Your task to perform on an android device: open device folders in google photos Image 0: 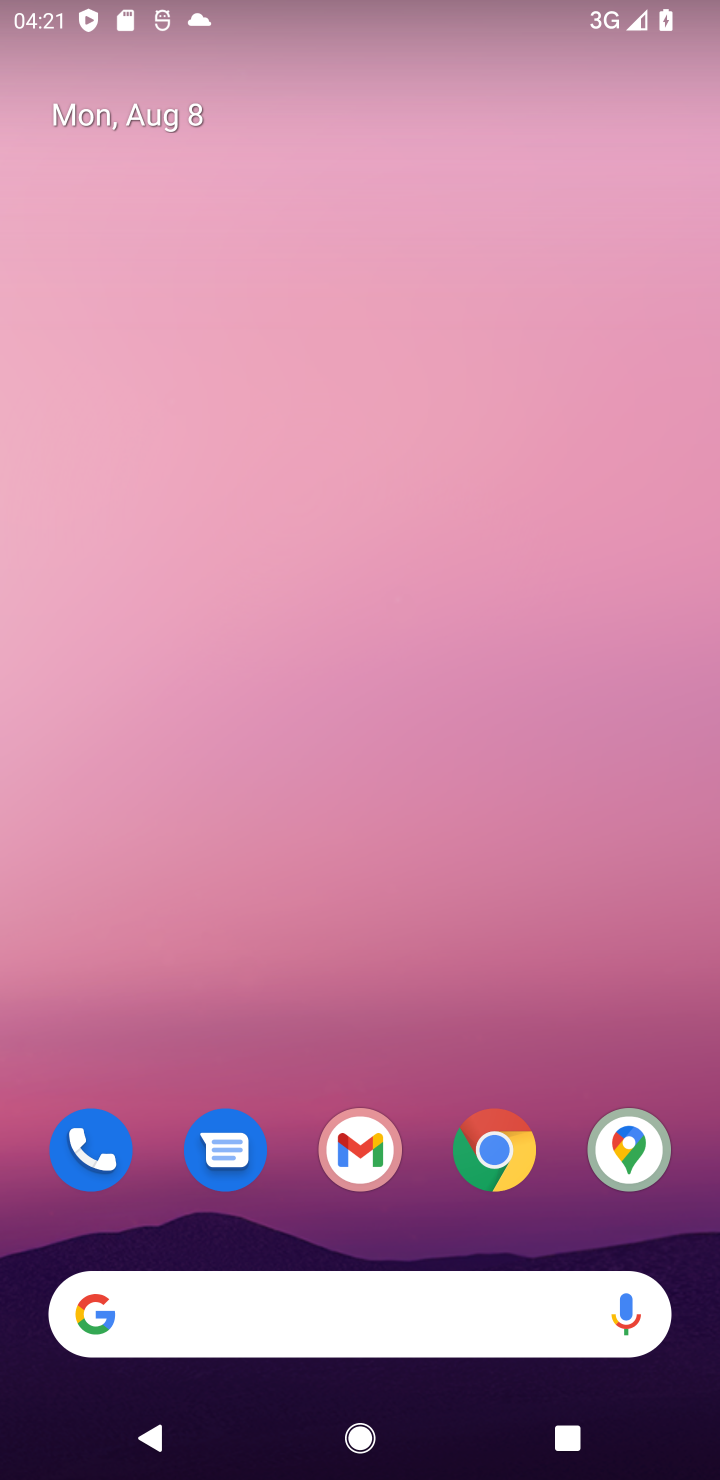
Step 0: drag from (105, 1446) to (382, 796)
Your task to perform on an android device: open device folders in google photos Image 1: 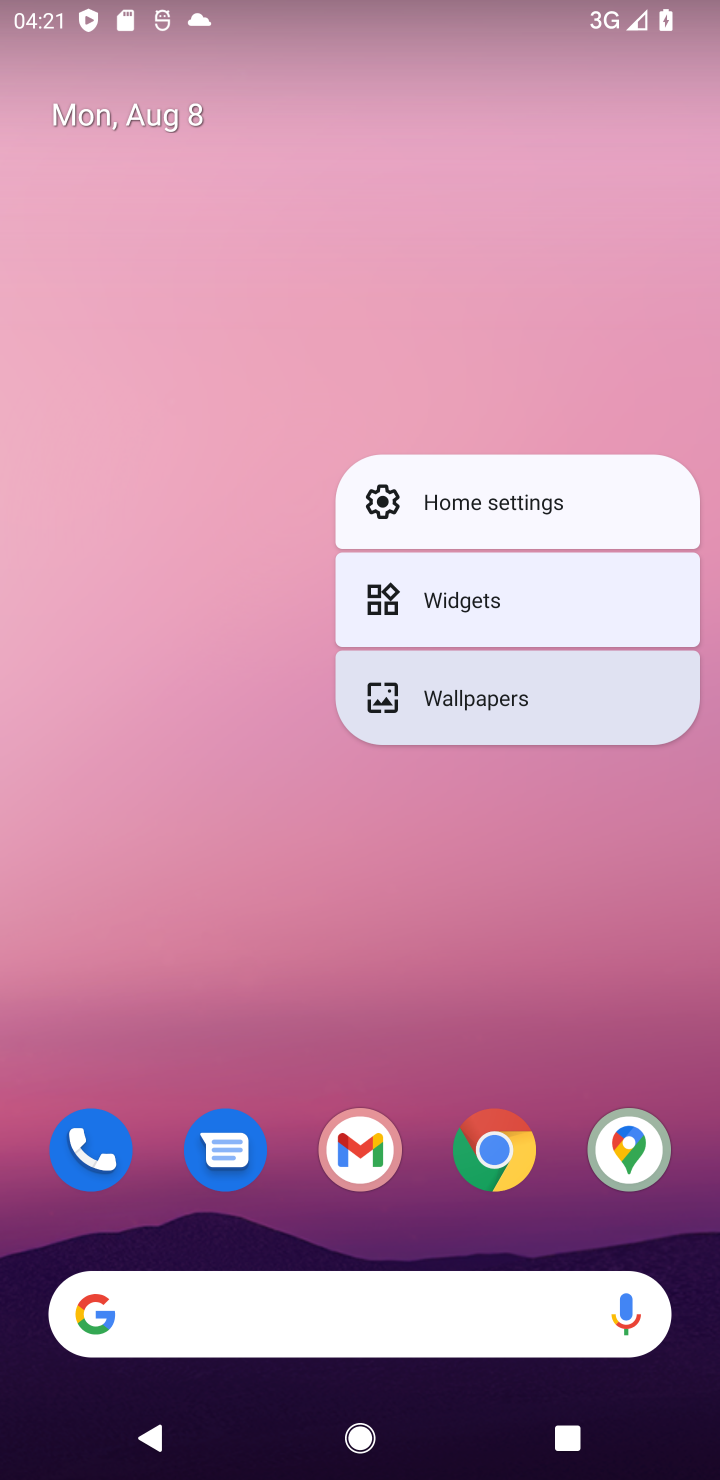
Step 1: drag from (193, 849) to (301, 684)
Your task to perform on an android device: open device folders in google photos Image 2: 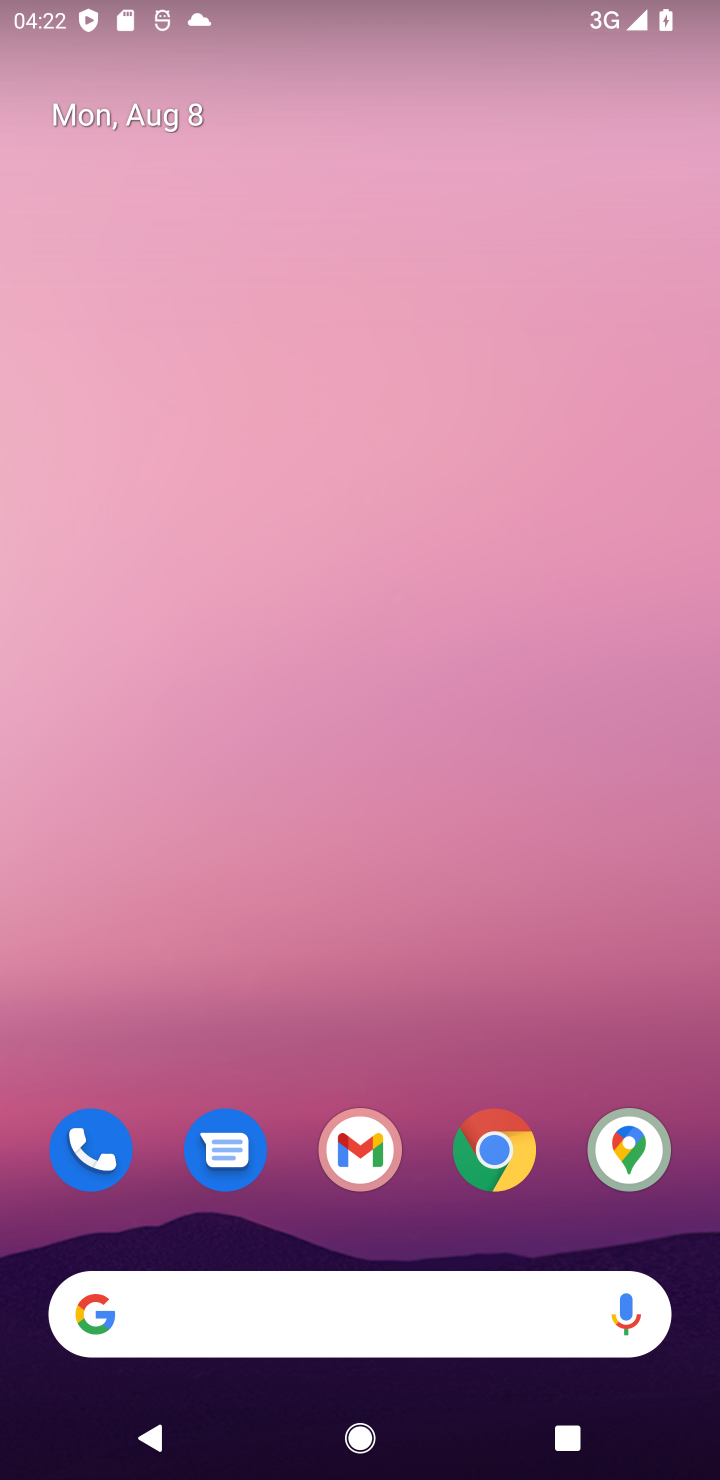
Step 2: drag from (47, 1405) to (642, 160)
Your task to perform on an android device: open device folders in google photos Image 3: 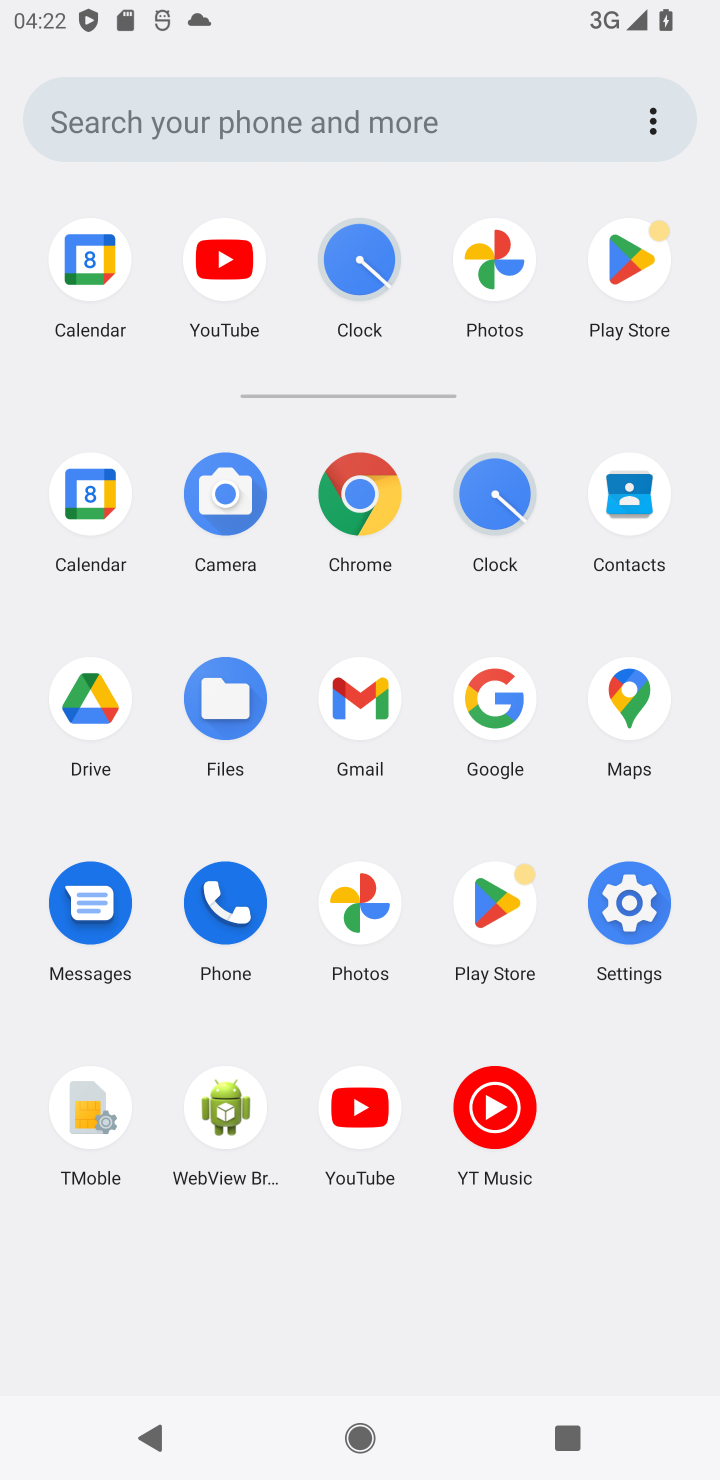
Step 3: click (377, 890)
Your task to perform on an android device: open device folders in google photos Image 4: 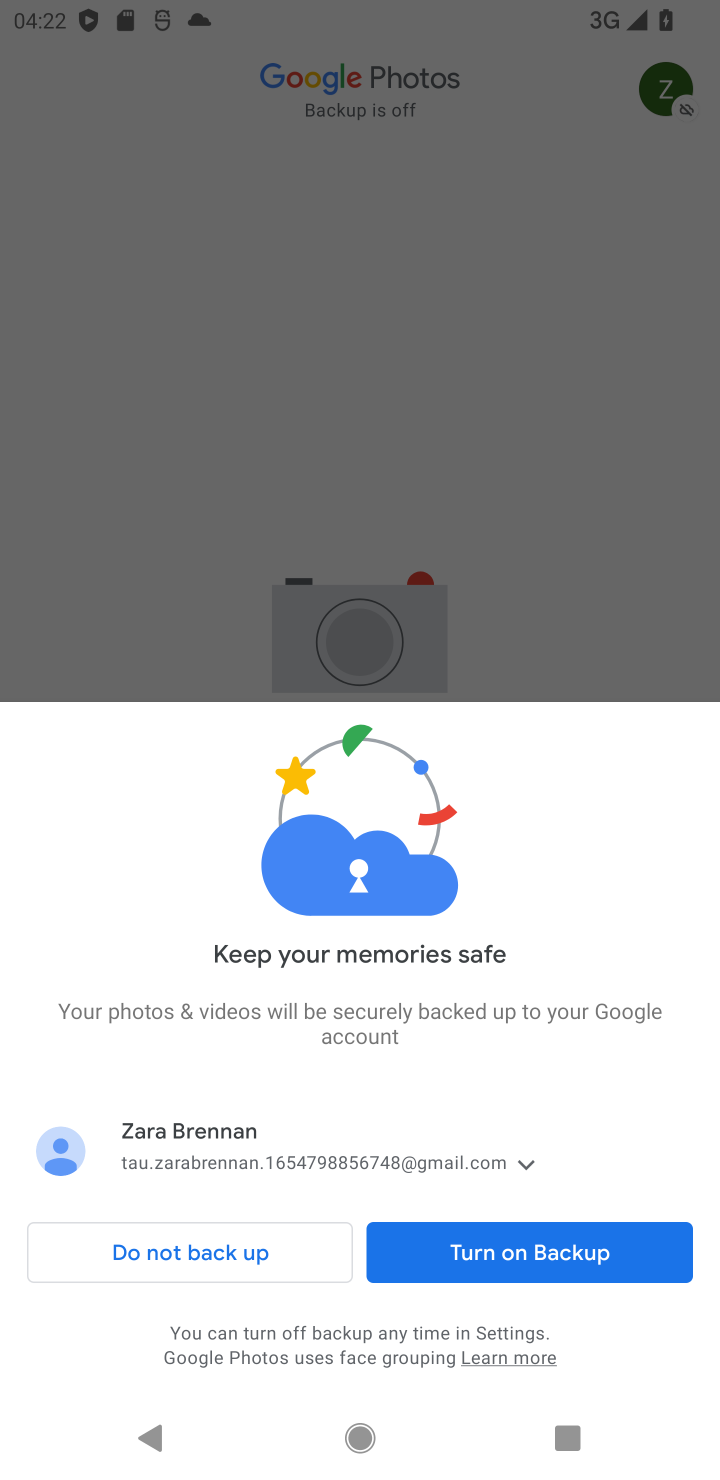
Step 4: click (201, 1283)
Your task to perform on an android device: open device folders in google photos Image 5: 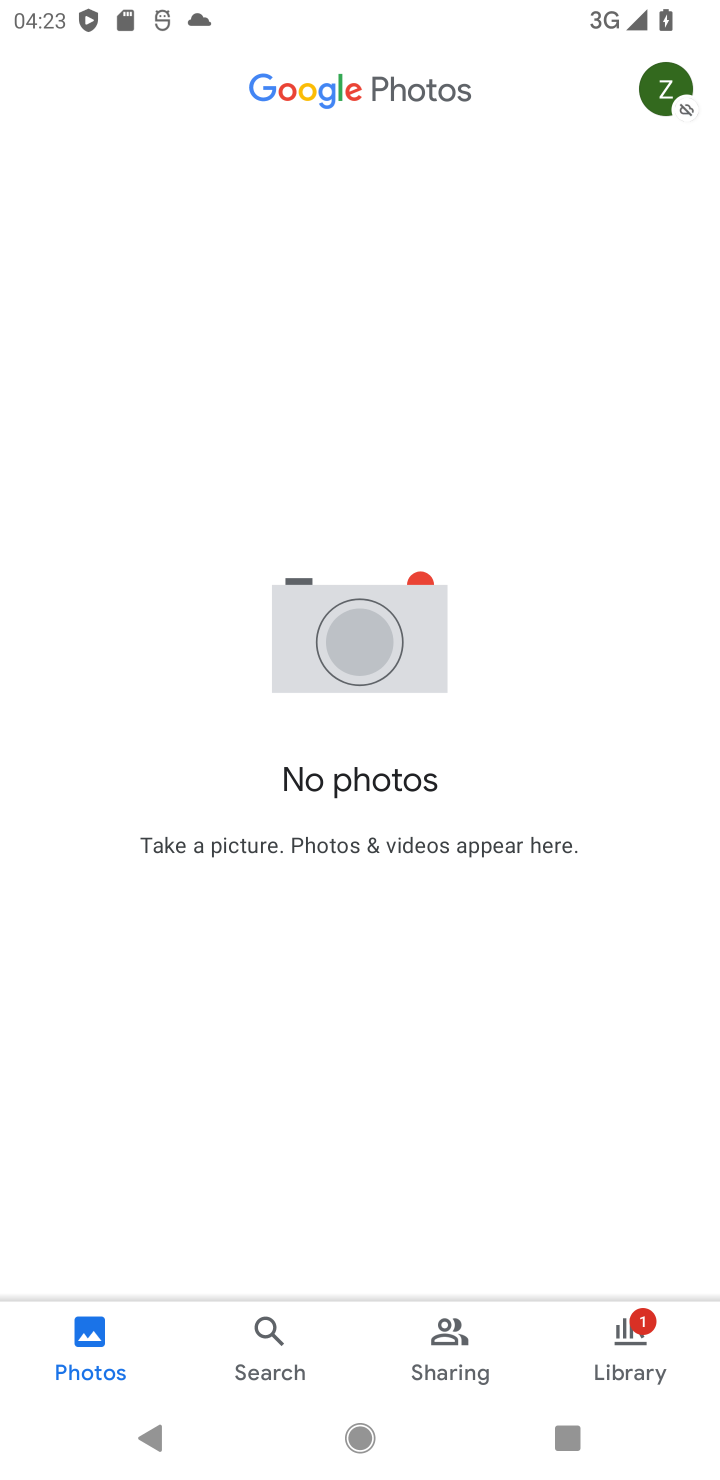
Step 5: click (669, 83)
Your task to perform on an android device: open device folders in google photos Image 6: 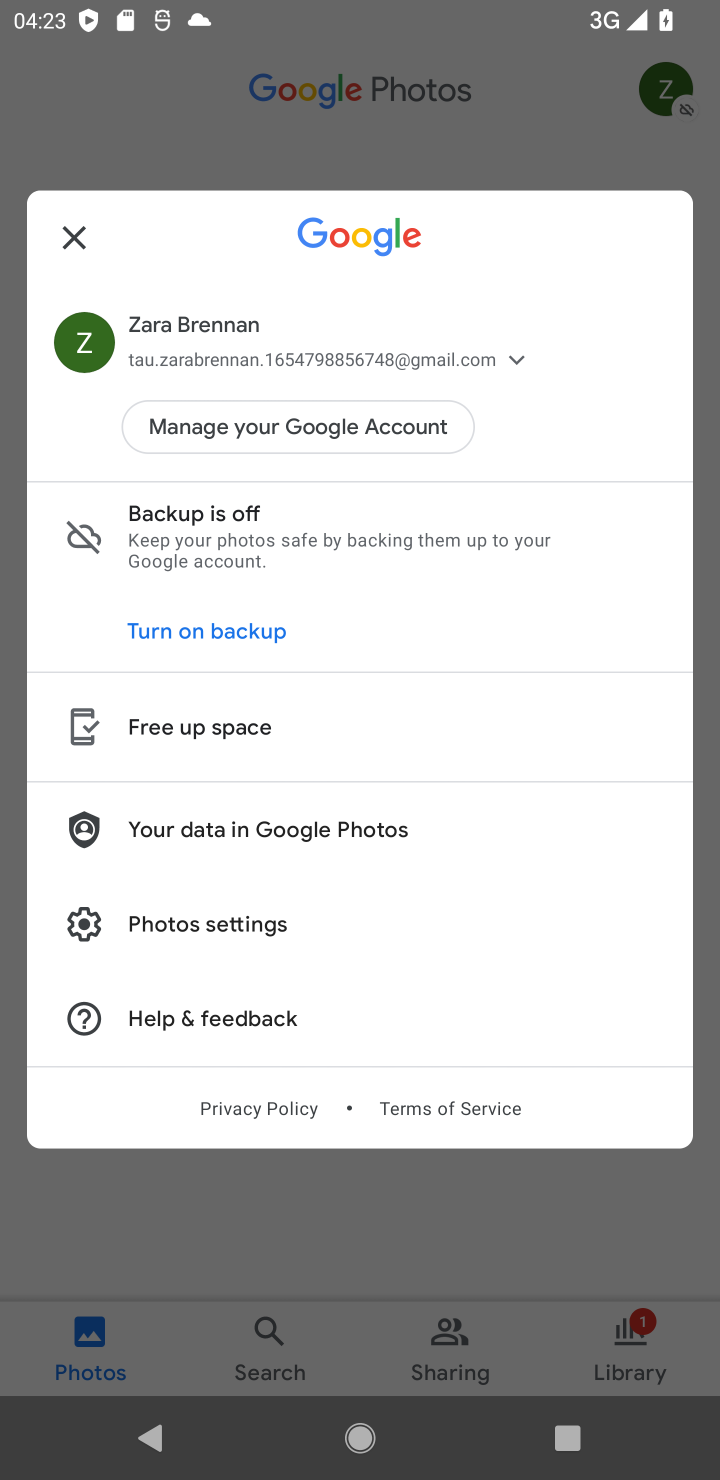
Step 6: click (492, 1242)
Your task to perform on an android device: open device folders in google photos Image 7: 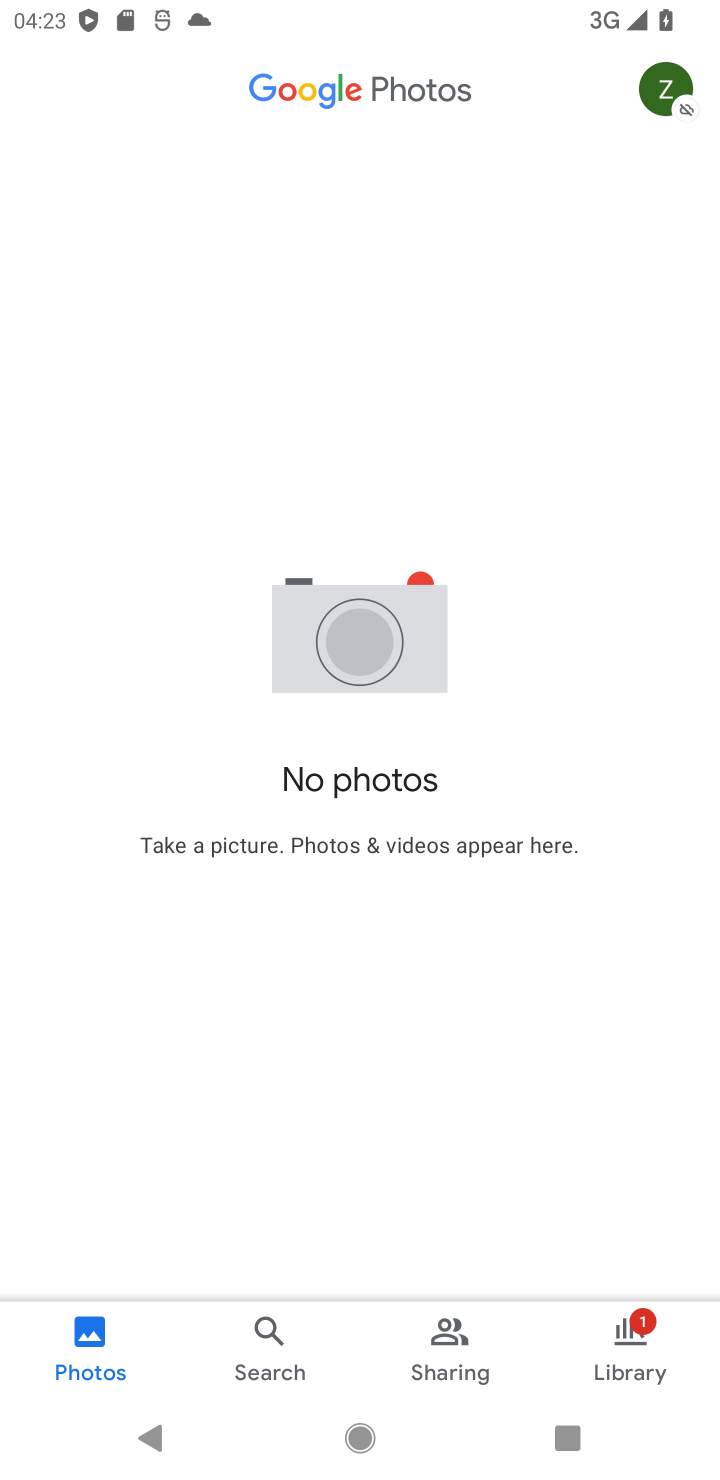
Step 7: task complete